Your task to perform on an android device: Check the news Image 0: 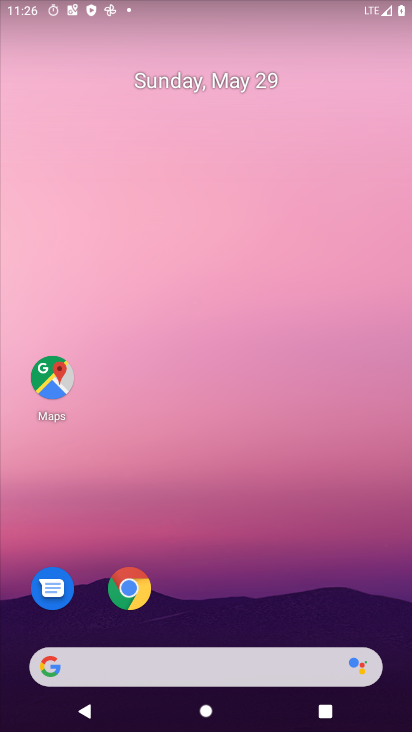
Step 0: drag from (215, 596) to (278, 143)
Your task to perform on an android device: Check the news Image 1: 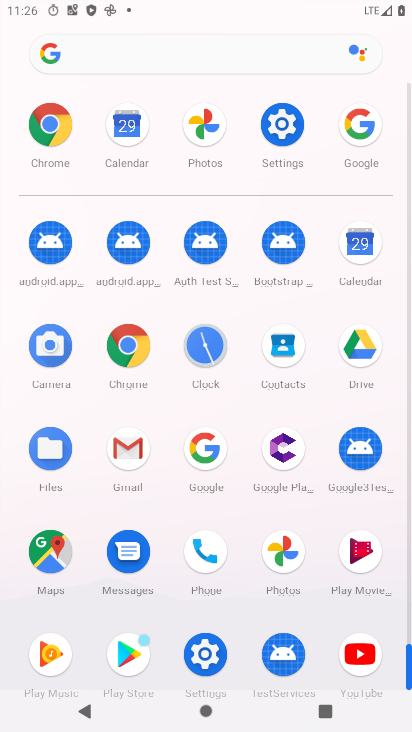
Step 1: click (194, 459)
Your task to perform on an android device: Check the news Image 2: 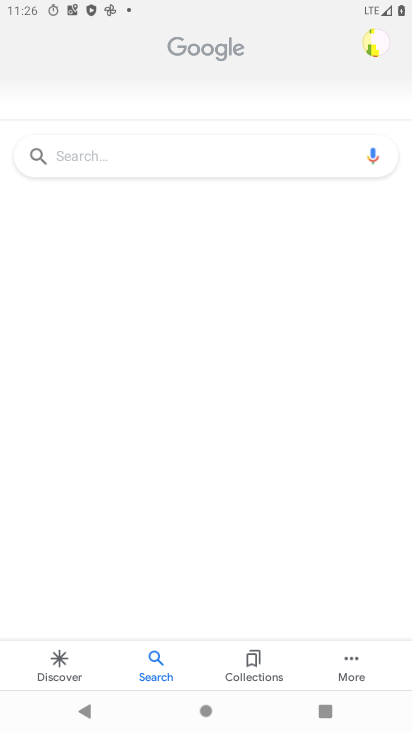
Step 2: click (55, 674)
Your task to perform on an android device: Check the news Image 3: 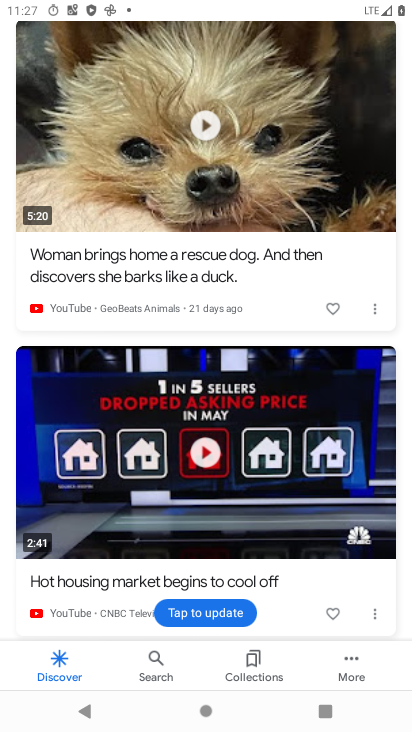
Step 3: task complete